Your task to perform on an android device: add a contact in the contacts app Image 0: 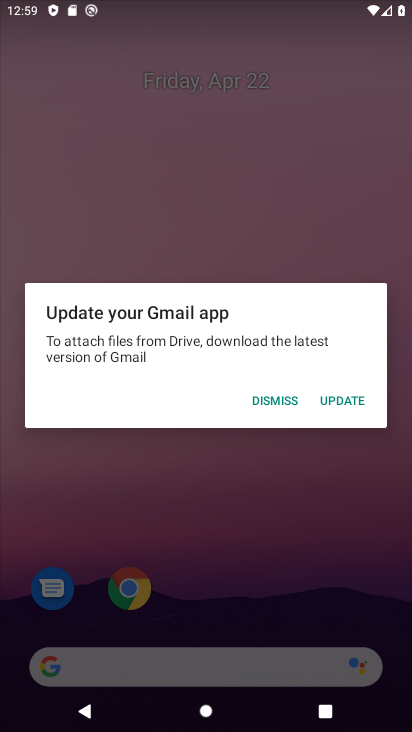
Step 0: press home button
Your task to perform on an android device: add a contact in the contacts app Image 1: 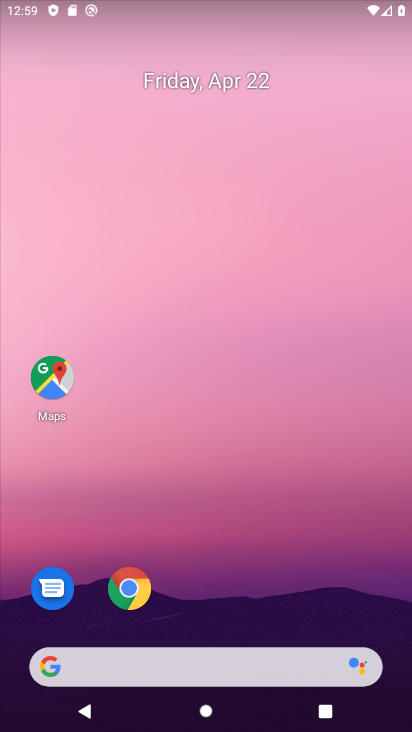
Step 1: drag from (395, 586) to (391, 115)
Your task to perform on an android device: add a contact in the contacts app Image 2: 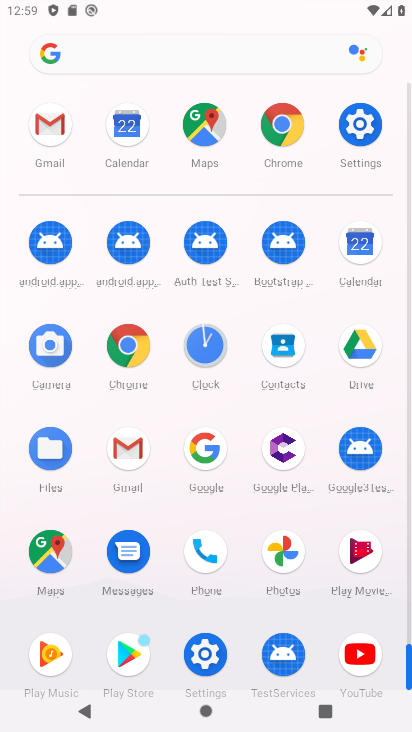
Step 2: click (281, 355)
Your task to perform on an android device: add a contact in the contacts app Image 3: 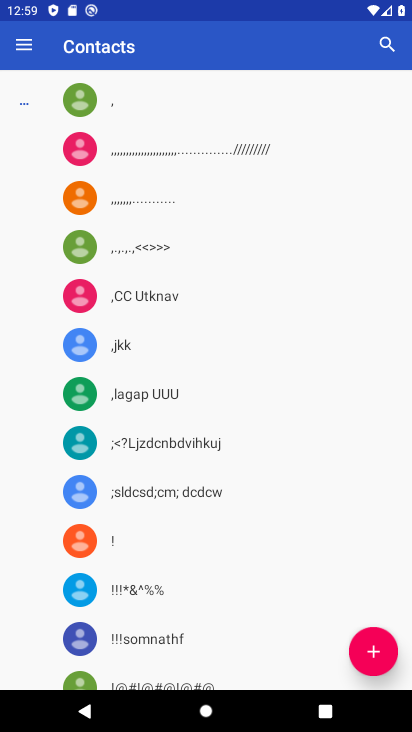
Step 3: click (369, 655)
Your task to perform on an android device: add a contact in the contacts app Image 4: 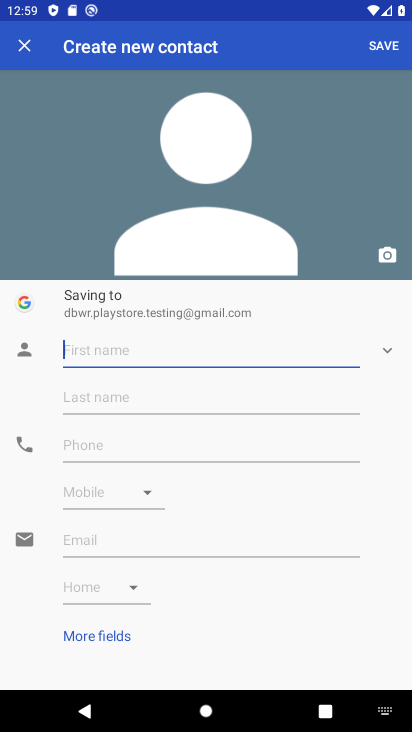
Step 4: click (195, 363)
Your task to perform on an android device: add a contact in the contacts app Image 5: 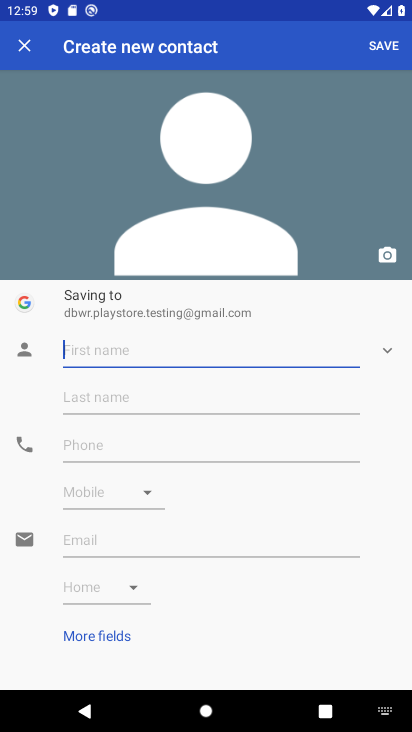
Step 5: type "bikash"
Your task to perform on an android device: add a contact in the contacts app Image 6: 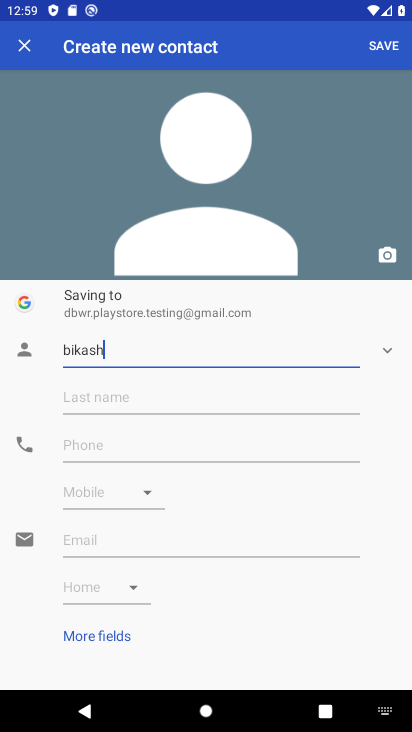
Step 6: click (202, 452)
Your task to perform on an android device: add a contact in the contacts app Image 7: 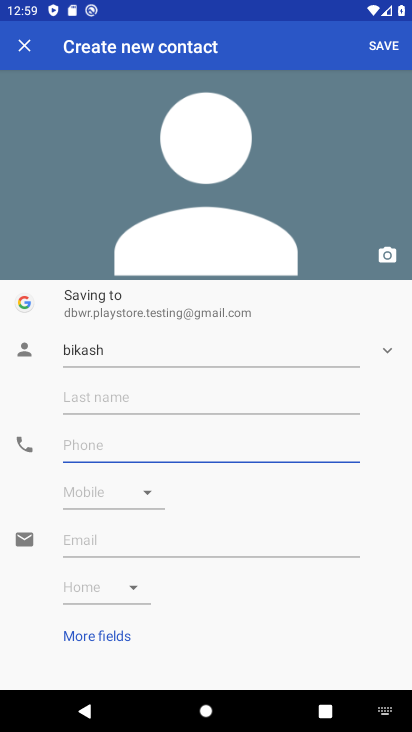
Step 7: type "8484829384"
Your task to perform on an android device: add a contact in the contacts app Image 8: 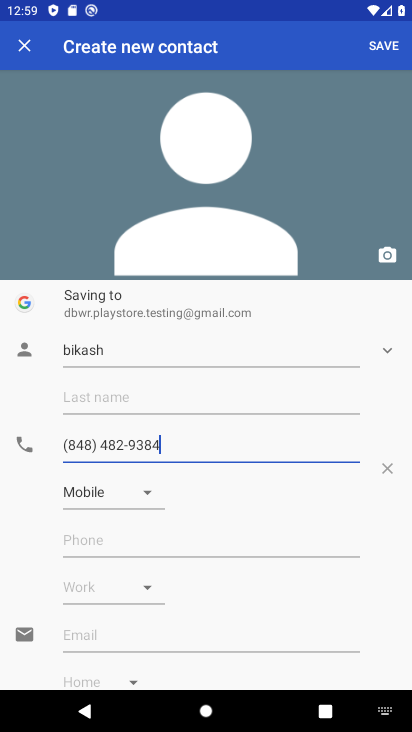
Step 8: click (375, 45)
Your task to perform on an android device: add a contact in the contacts app Image 9: 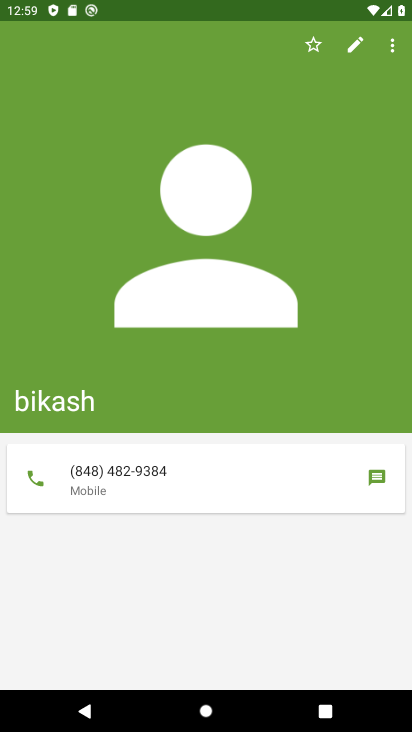
Step 9: task complete